Your task to perform on an android device: Go to ESPN.com Image 0: 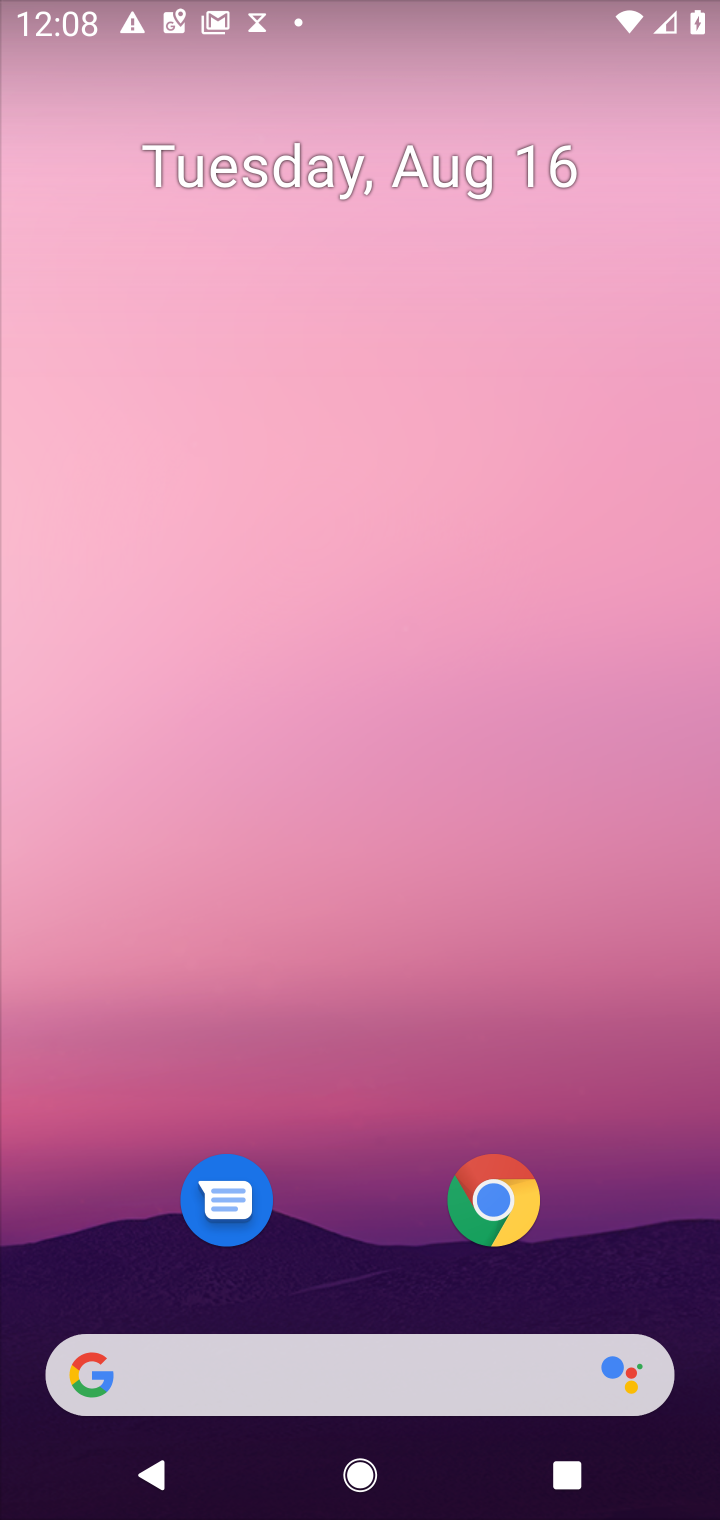
Step 0: click (480, 1163)
Your task to perform on an android device: Go to ESPN.com Image 1: 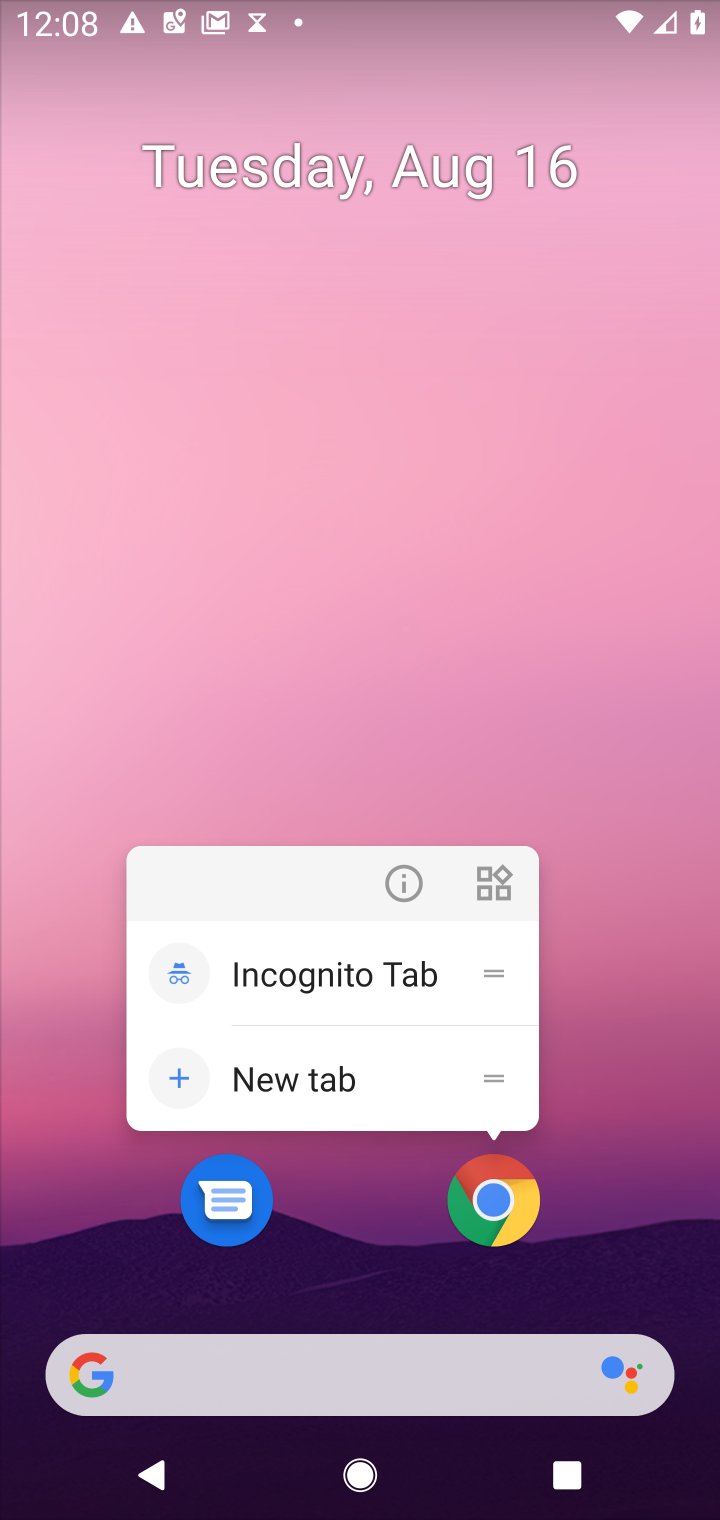
Step 1: click (495, 1192)
Your task to perform on an android device: Go to ESPN.com Image 2: 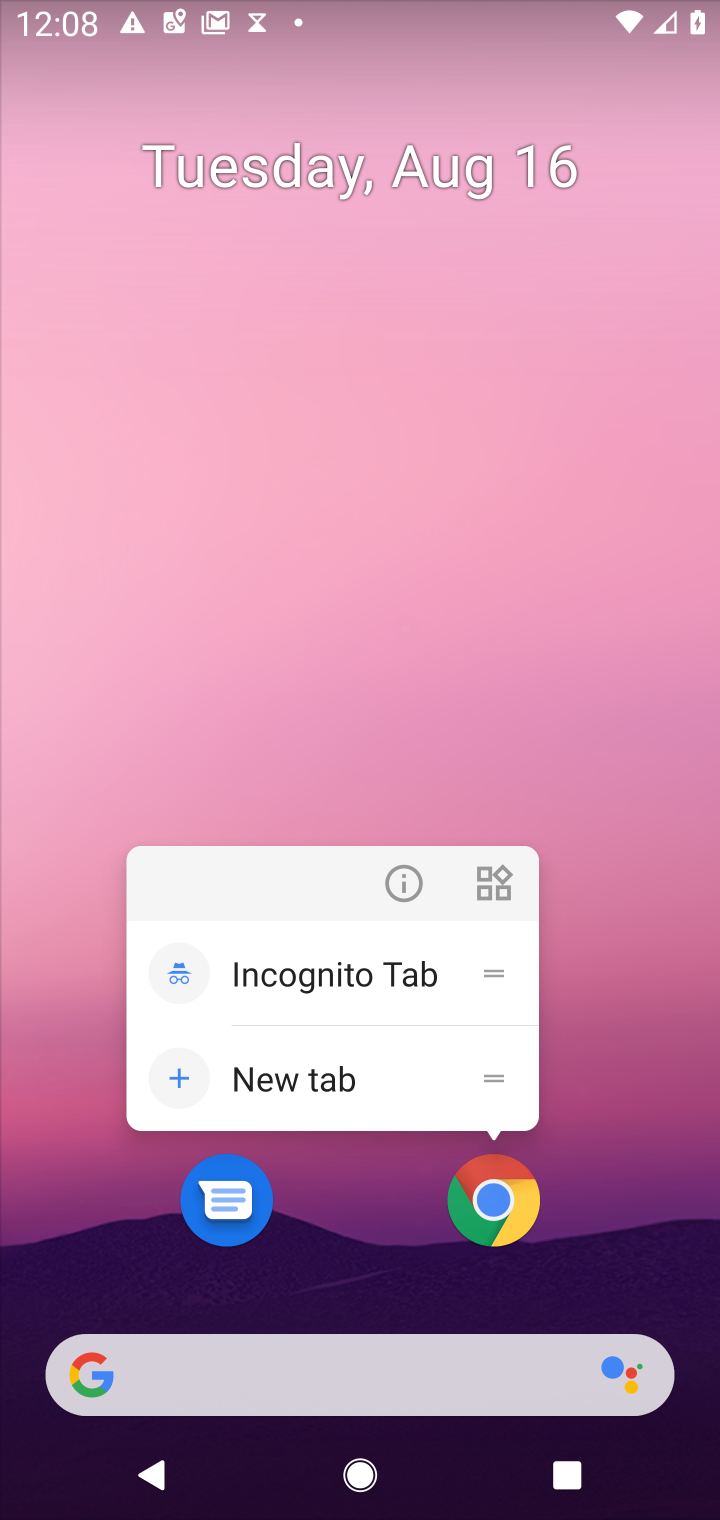
Step 2: click (495, 1192)
Your task to perform on an android device: Go to ESPN.com Image 3: 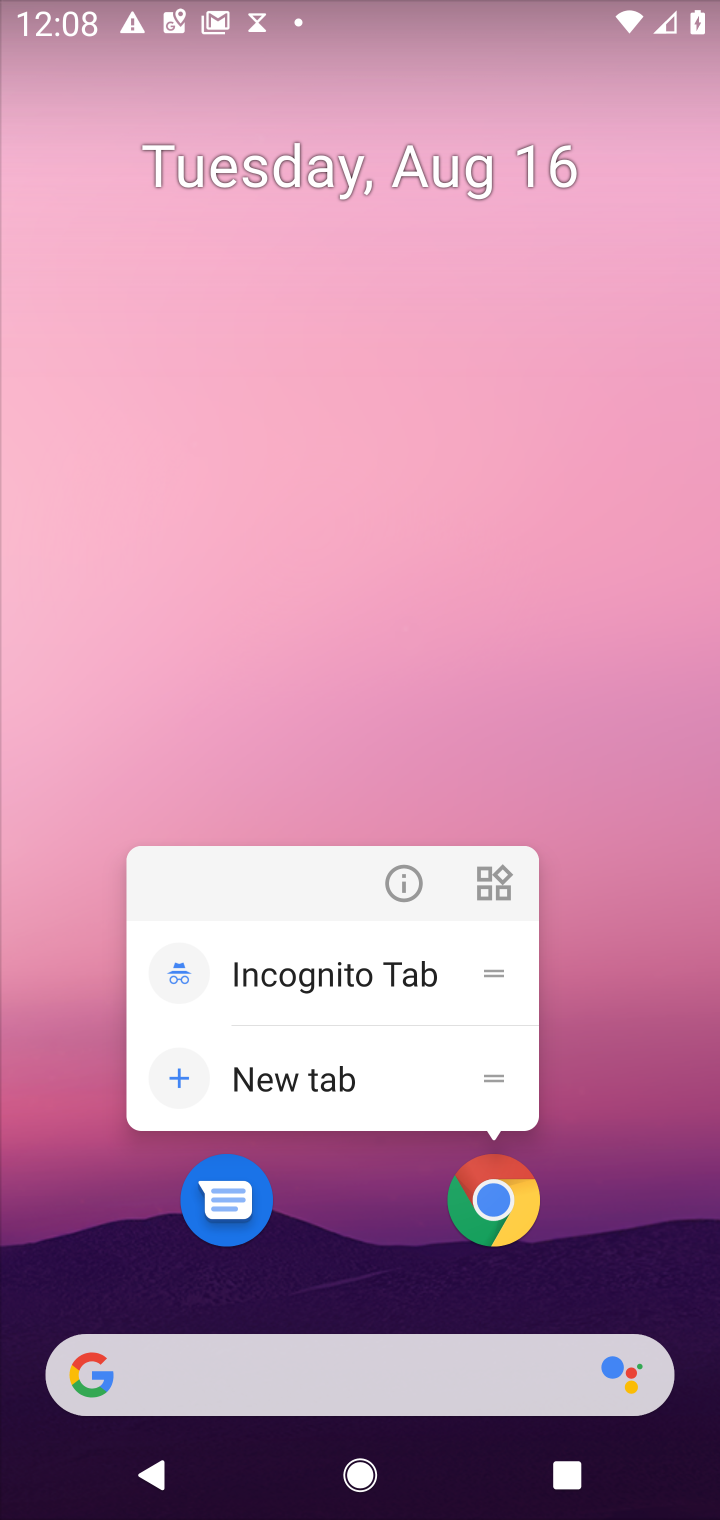
Step 3: click (495, 1192)
Your task to perform on an android device: Go to ESPN.com Image 4: 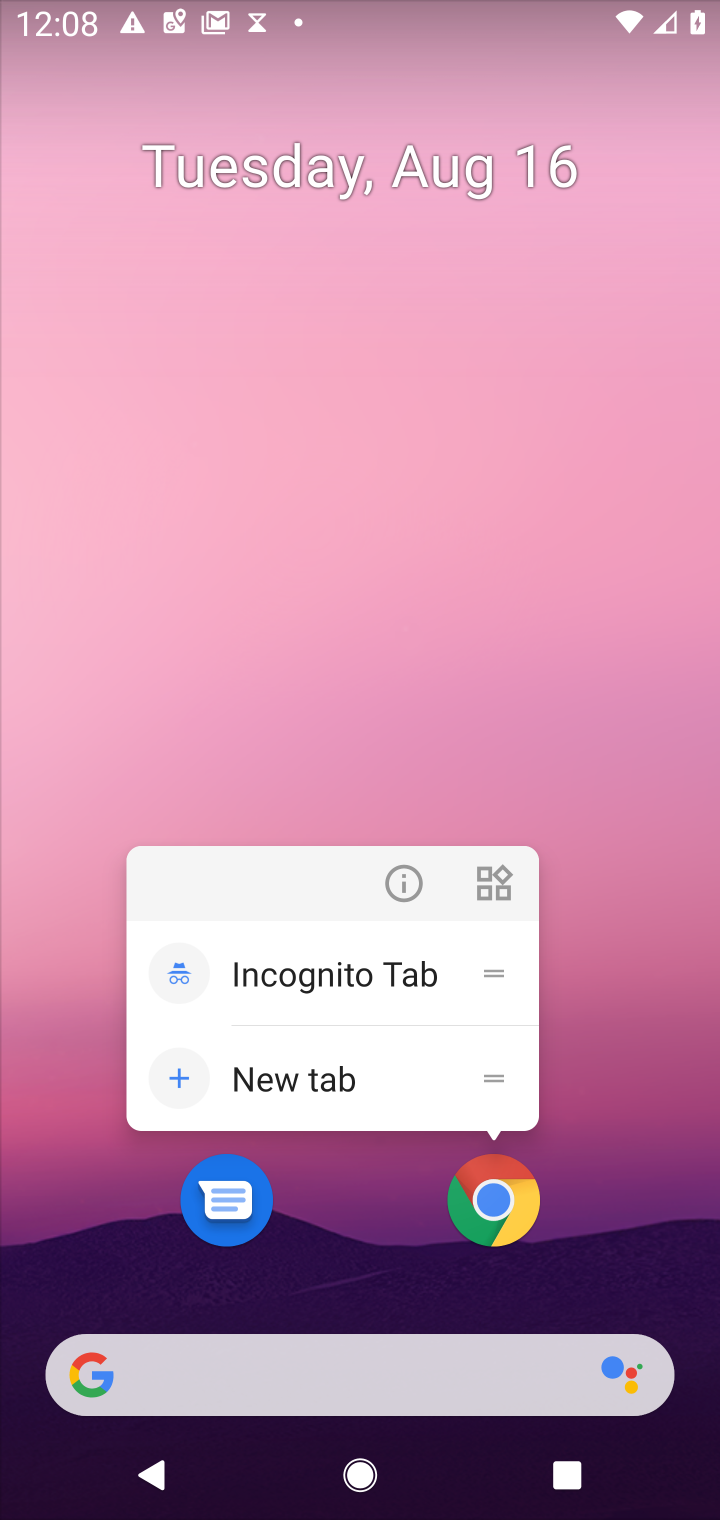
Step 4: click (508, 1203)
Your task to perform on an android device: Go to ESPN.com Image 5: 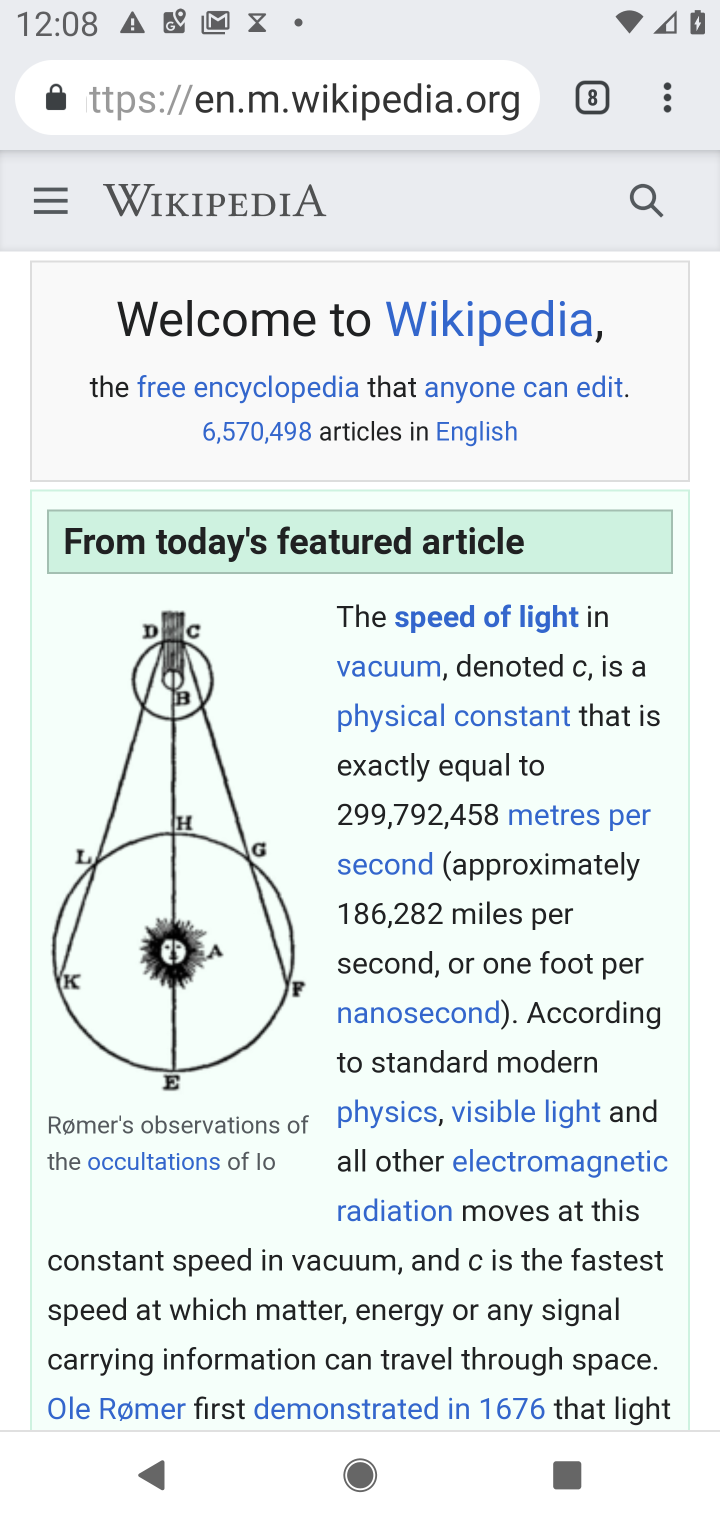
Step 5: click (608, 110)
Your task to perform on an android device: Go to ESPN.com Image 6: 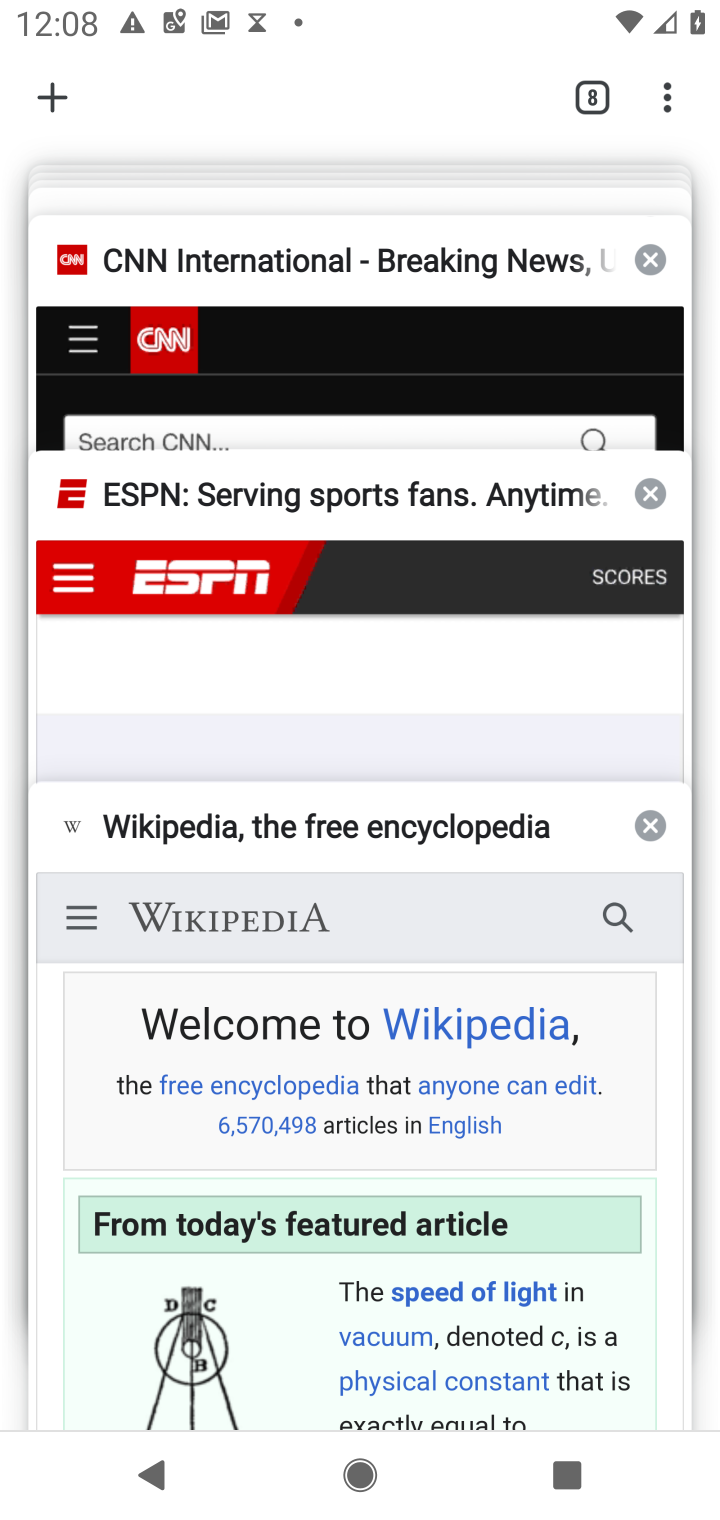
Step 6: click (253, 575)
Your task to perform on an android device: Go to ESPN.com Image 7: 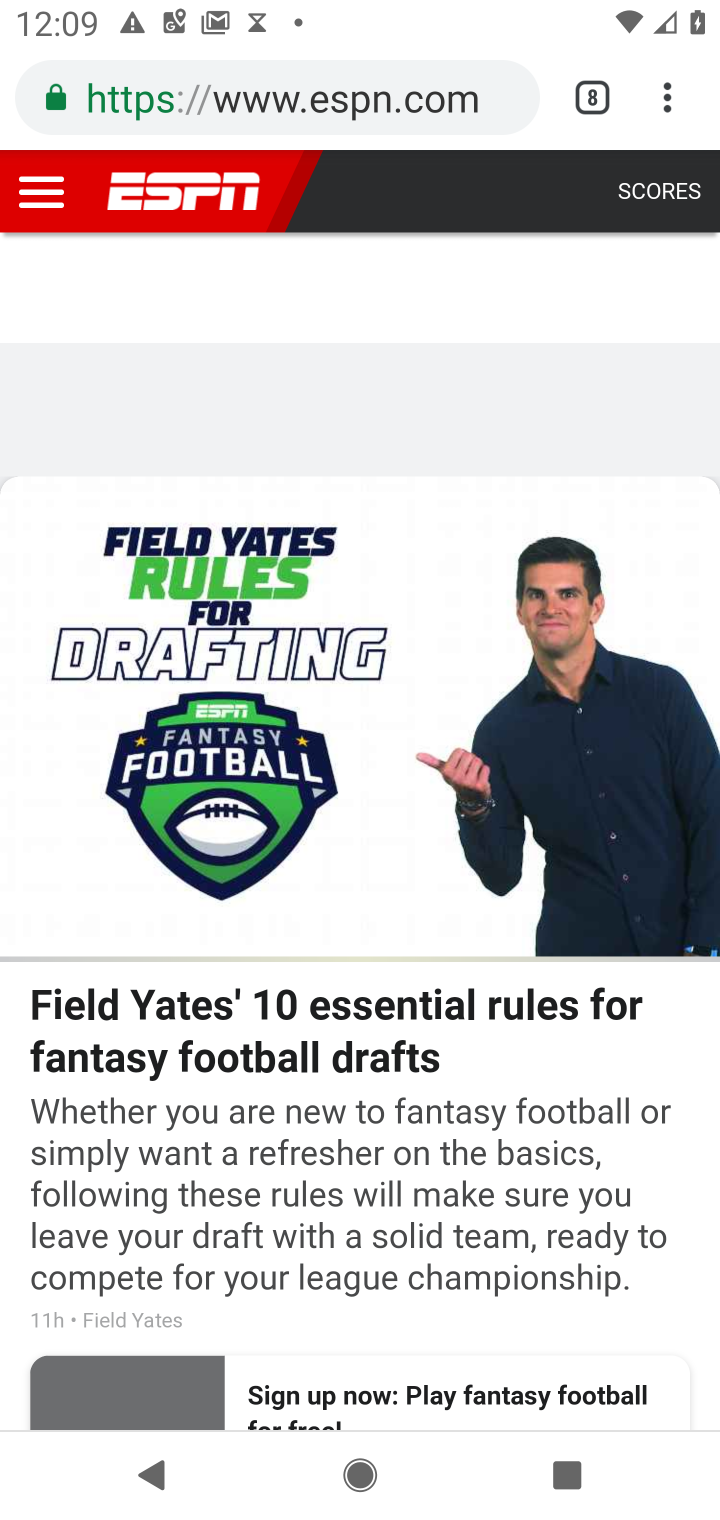
Step 7: task complete